Your task to perform on an android device: Do I have any events this weekend? Image 0: 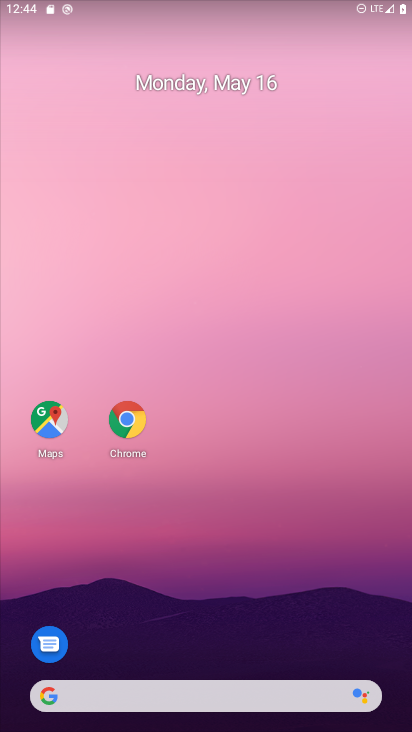
Step 0: drag from (220, 637) to (14, 271)
Your task to perform on an android device: Do I have any events this weekend? Image 1: 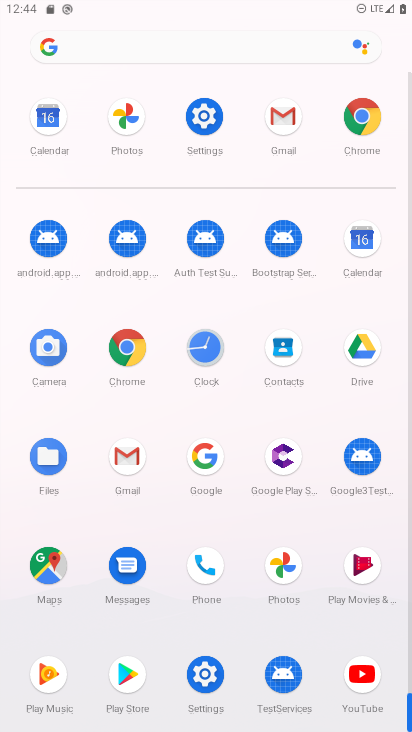
Step 1: click (364, 245)
Your task to perform on an android device: Do I have any events this weekend? Image 2: 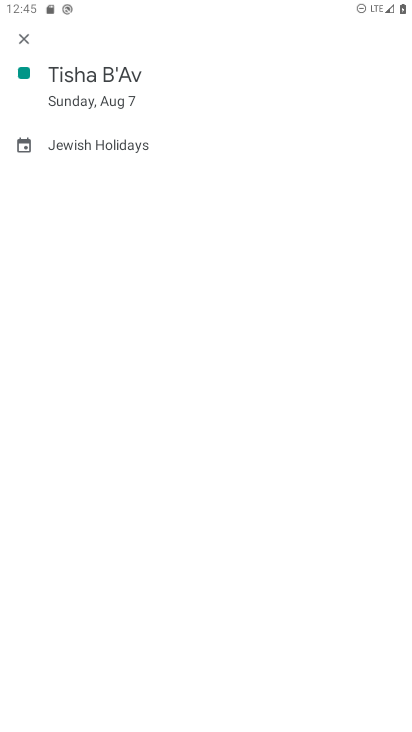
Step 2: press back button
Your task to perform on an android device: Do I have any events this weekend? Image 3: 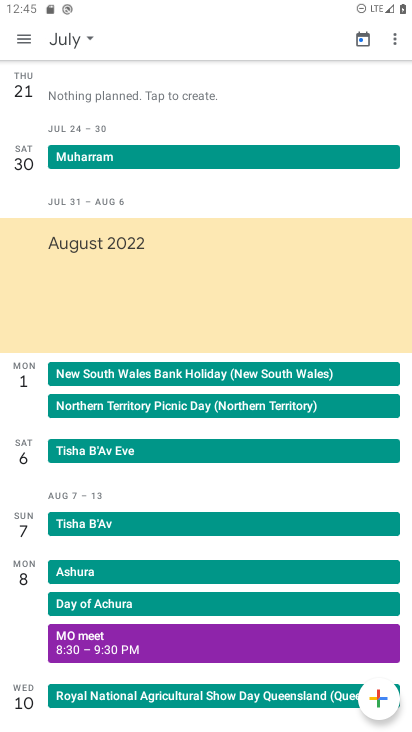
Step 3: click (56, 35)
Your task to perform on an android device: Do I have any events this weekend? Image 4: 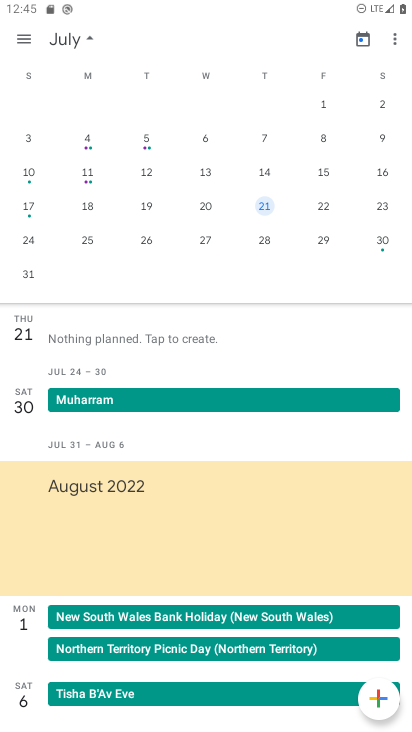
Step 4: drag from (96, 213) to (410, 35)
Your task to perform on an android device: Do I have any events this weekend? Image 5: 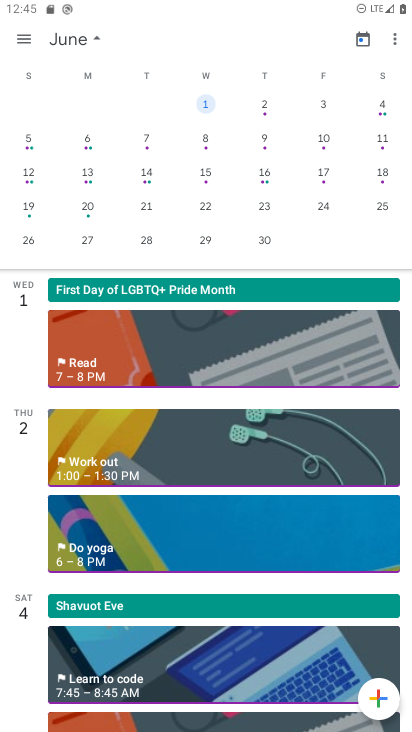
Step 5: click (271, 169)
Your task to perform on an android device: Do I have any events this weekend? Image 6: 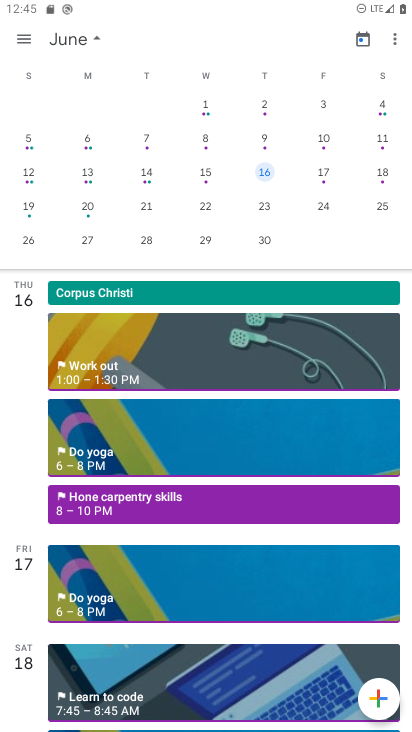
Step 6: drag from (260, 509) to (392, 125)
Your task to perform on an android device: Do I have any events this weekend? Image 7: 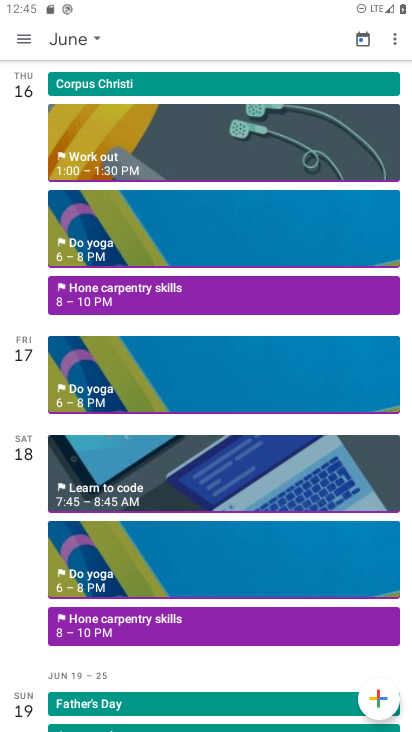
Step 7: drag from (300, 132) to (261, 590)
Your task to perform on an android device: Do I have any events this weekend? Image 8: 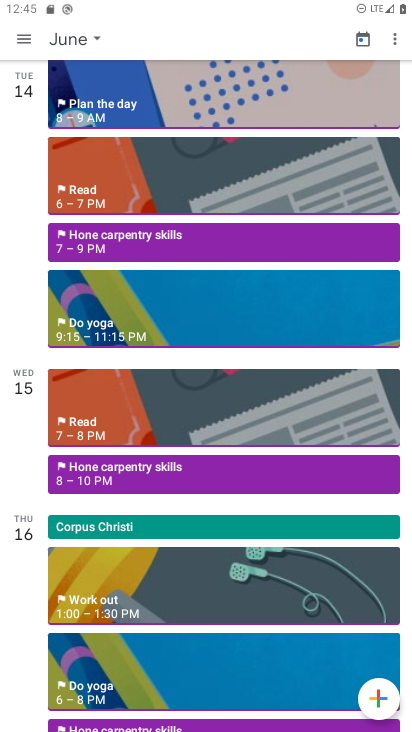
Step 8: click (95, 40)
Your task to perform on an android device: Do I have any events this weekend? Image 9: 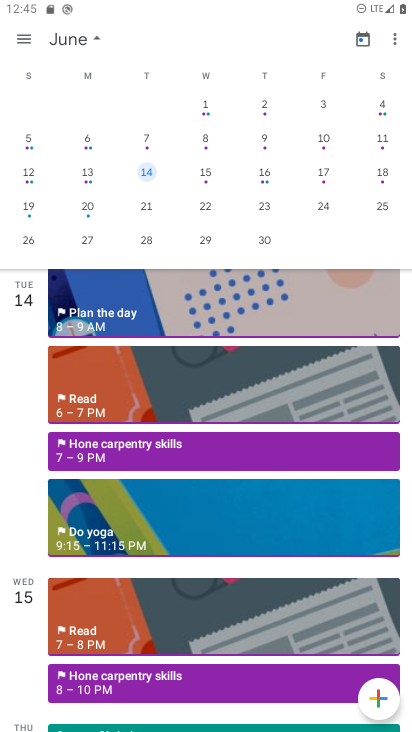
Step 9: click (272, 413)
Your task to perform on an android device: Do I have any events this weekend? Image 10: 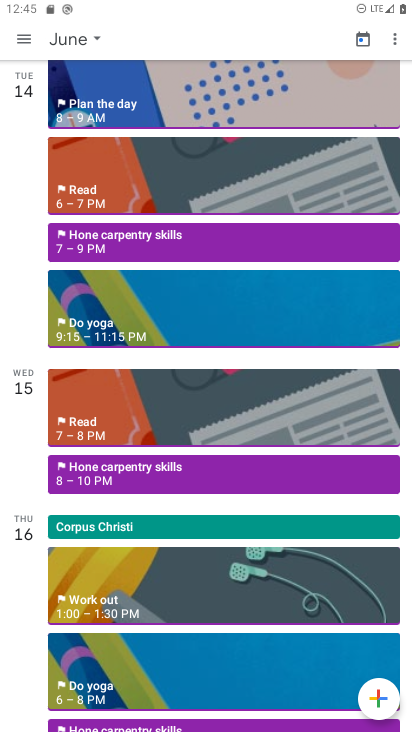
Step 10: click (70, 41)
Your task to perform on an android device: Do I have any events this weekend? Image 11: 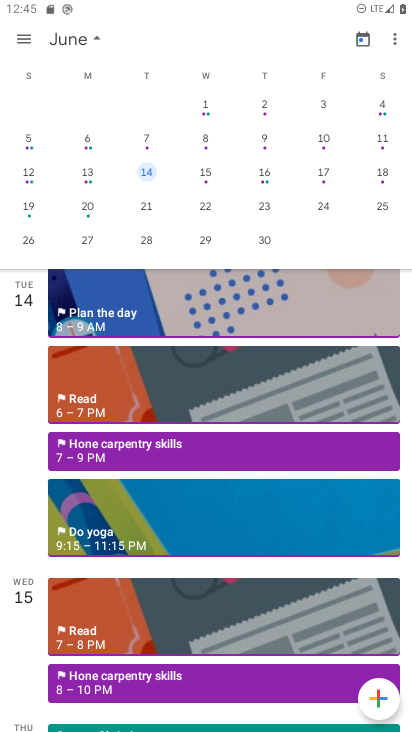
Step 11: drag from (44, 201) to (410, 145)
Your task to perform on an android device: Do I have any events this weekend? Image 12: 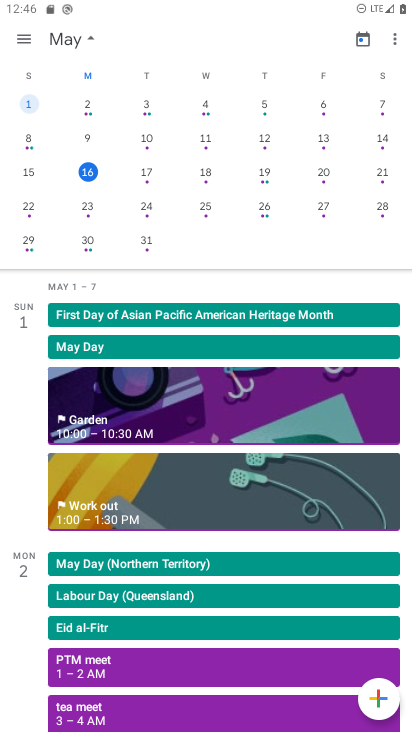
Step 12: click (269, 182)
Your task to perform on an android device: Do I have any events this weekend? Image 13: 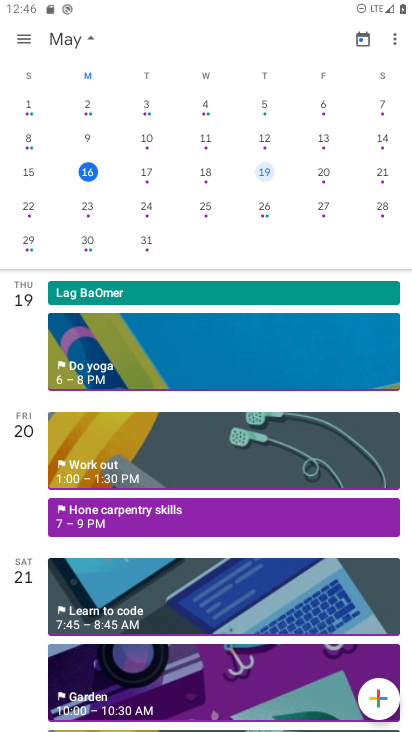
Step 13: task complete